Your task to perform on an android device: turn on sleep mode Image 0: 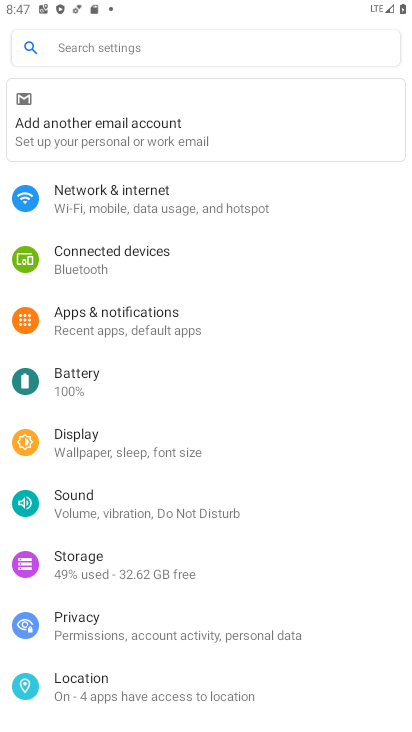
Step 0: press home button
Your task to perform on an android device: turn on sleep mode Image 1: 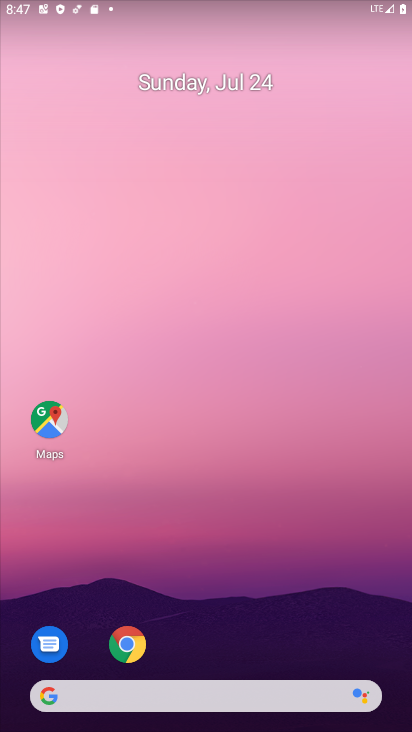
Step 1: drag from (99, 448) to (340, 12)
Your task to perform on an android device: turn on sleep mode Image 2: 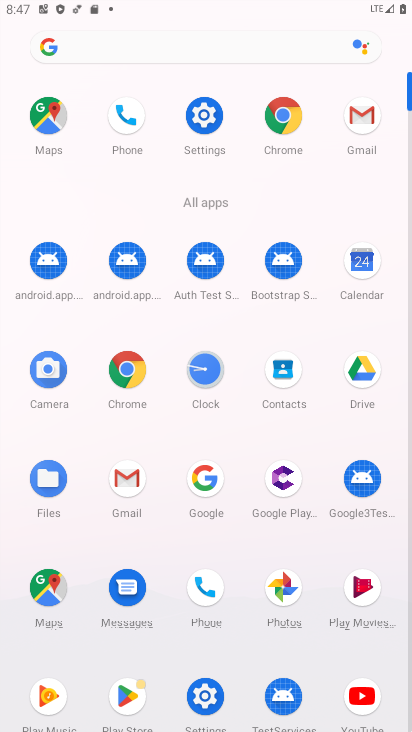
Step 2: click (215, 107)
Your task to perform on an android device: turn on sleep mode Image 3: 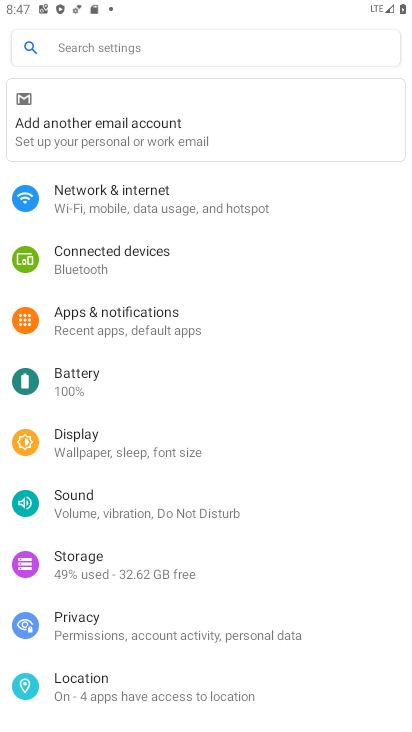
Step 3: click (162, 454)
Your task to perform on an android device: turn on sleep mode Image 4: 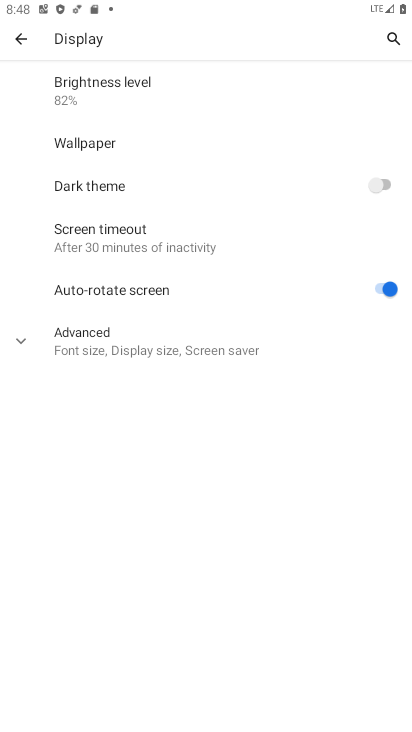
Step 4: task complete